Your task to perform on an android device: Show me productivity apps on the Play Store Image 0: 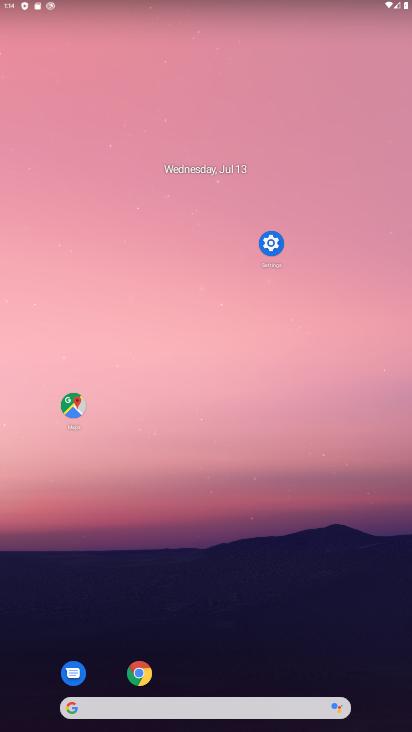
Step 0: drag from (221, 678) to (190, 6)
Your task to perform on an android device: Show me productivity apps on the Play Store Image 1: 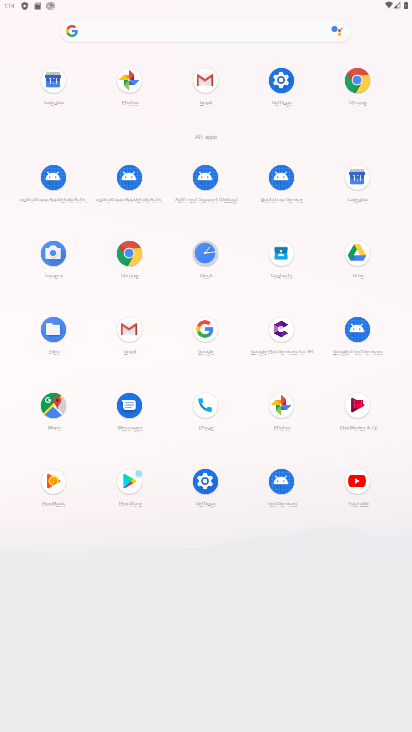
Step 1: click (138, 481)
Your task to perform on an android device: Show me productivity apps on the Play Store Image 2: 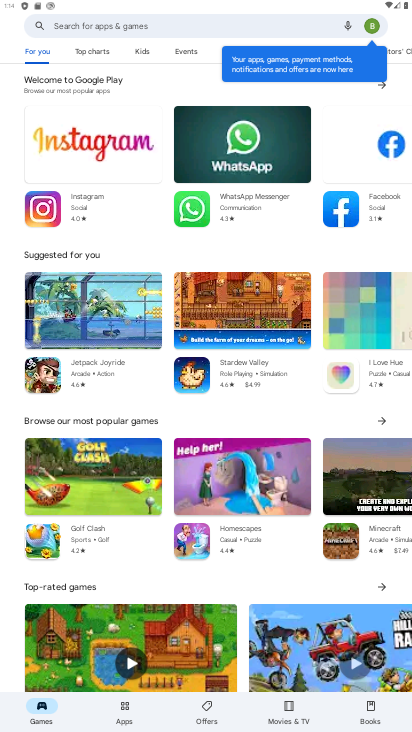
Step 2: click (121, 706)
Your task to perform on an android device: Show me productivity apps on the Play Store Image 3: 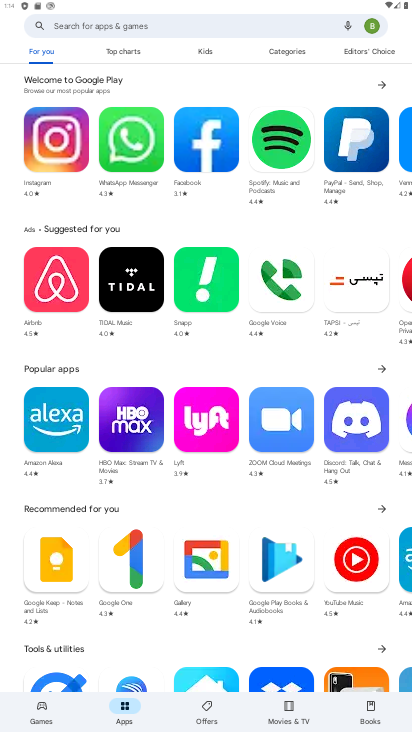
Step 3: click (261, 49)
Your task to perform on an android device: Show me productivity apps on the Play Store Image 4: 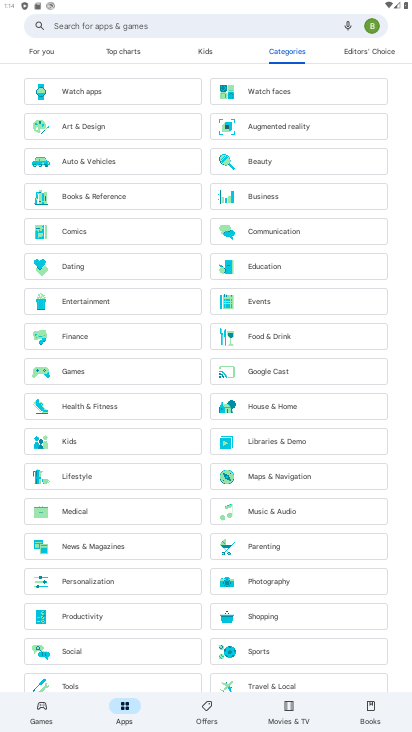
Step 4: click (94, 618)
Your task to perform on an android device: Show me productivity apps on the Play Store Image 5: 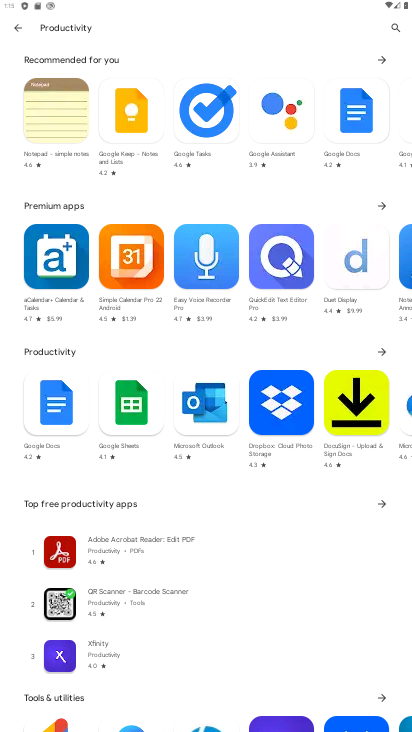
Step 5: task complete